Your task to perform on an android device: Go to notification settings Image 0: 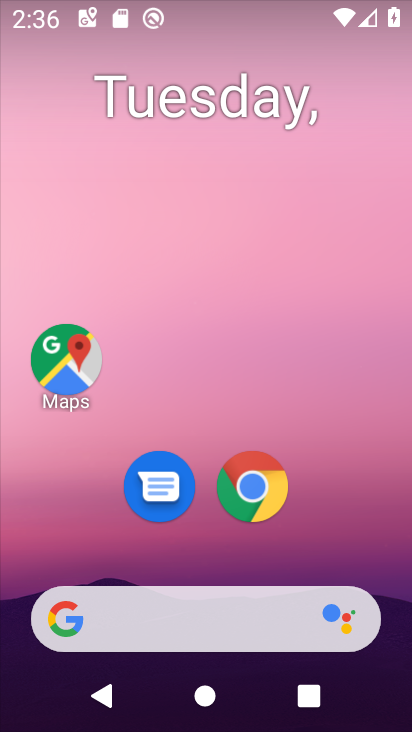
Step 0: press home button
Your task to perform on an android device: Go to notification settings Image 1: 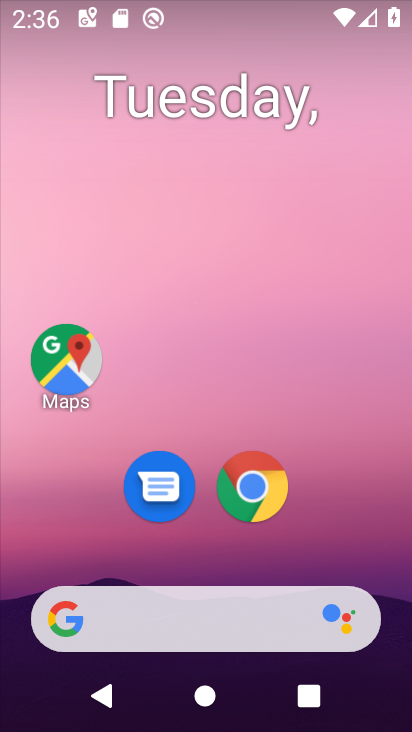
Step 1: drag from (212, 547) to (218, 74)
Your task to perform on an android device: Go to notification settings Image 2: 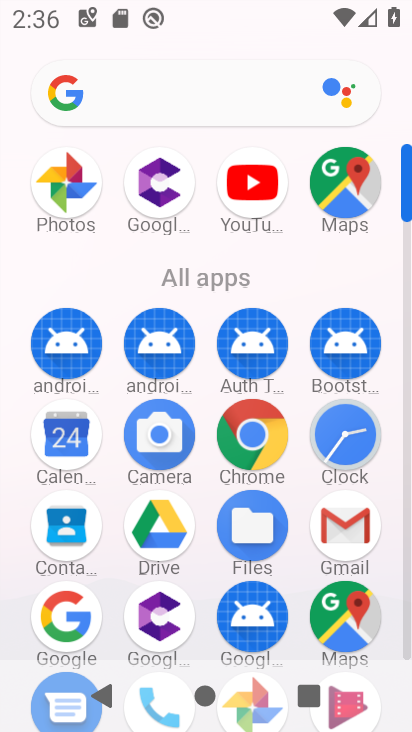
Step 2: drag from (205, 636) to (233, 108)
Your task to perform on an android device: Go to notification settings Image 3: 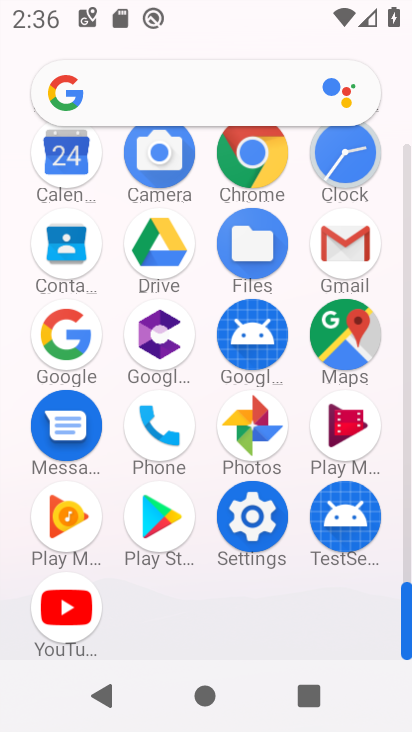
Step 3: click (251, 509)
Your task to perform on an android device: Go to notification settings Image 4: 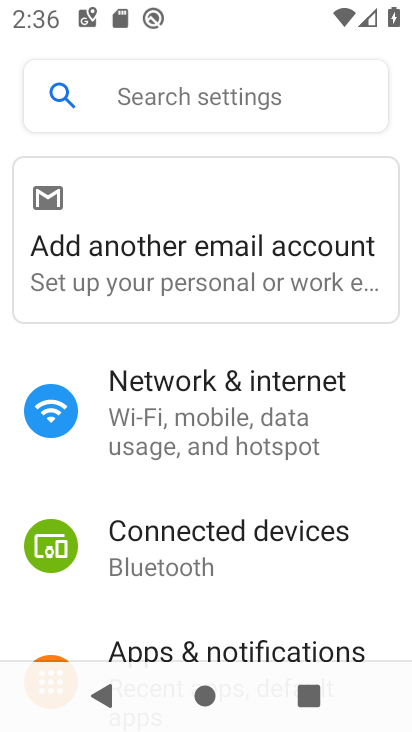
Step 4: click (96, 640)
Your task to perform on an android device: Go to notification settings Image 5: 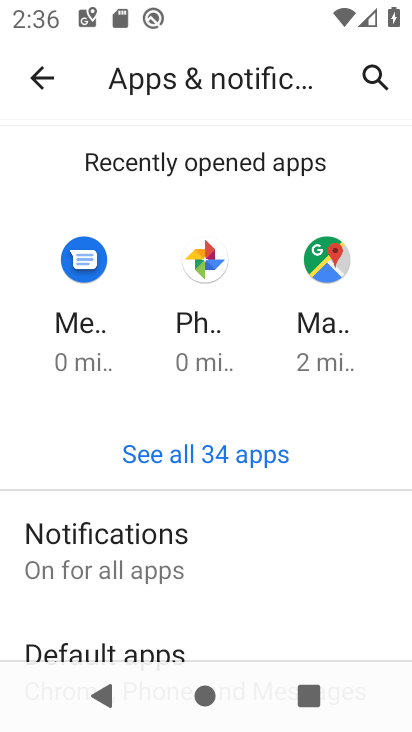
Step 5: click (200, 547)
Your task to perform on an android device: Go to notification settings Image 6: 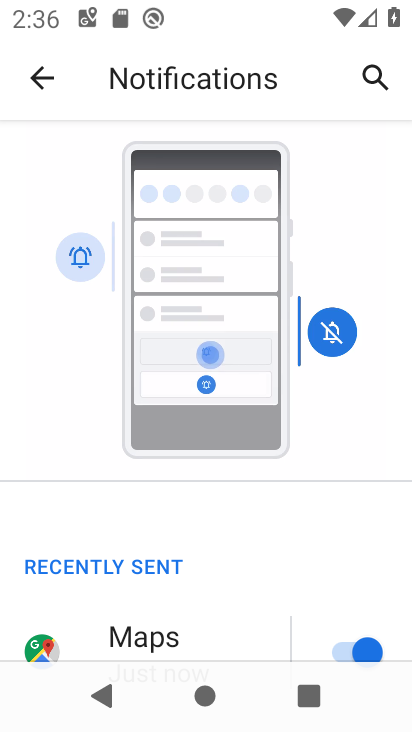
Step 6: drag from (231, 621) to (255, 144)
Your task to perform on an android device: Go to notification settings Image 7: 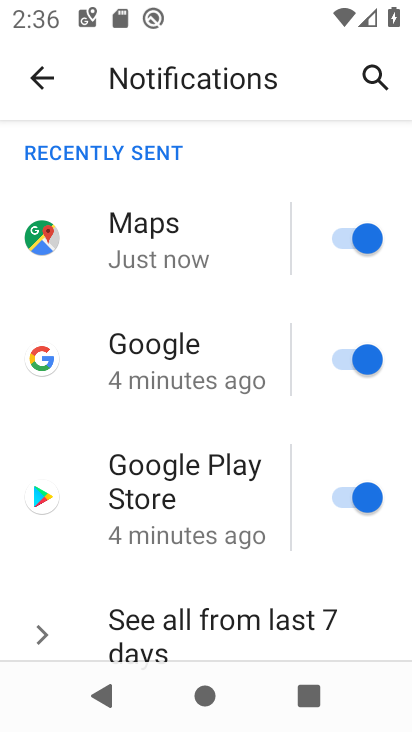
Step 7: drag from (266, 589) to (284, 112)
Your task to perform on an android device: Go to notification settings Image 8: 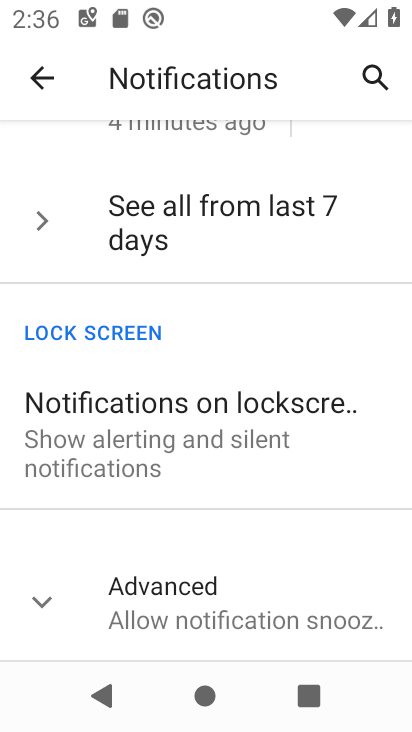
Step 8: click (42, 589)
Your task to perform on an android device: Go to notification settings Image 9: 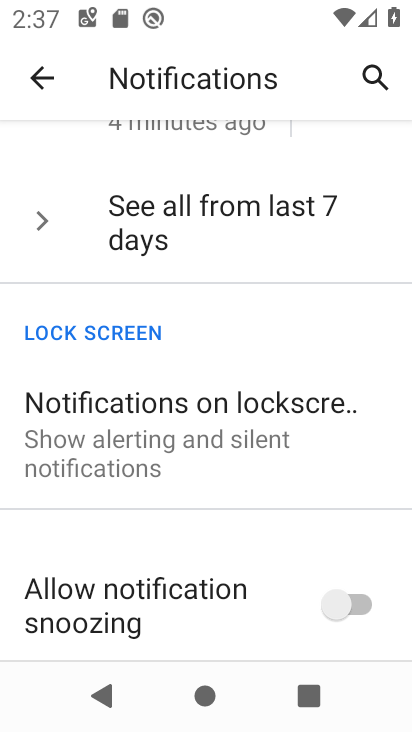
Step 9: task complete